Your task to perform on an android device: Open maps Image 0: 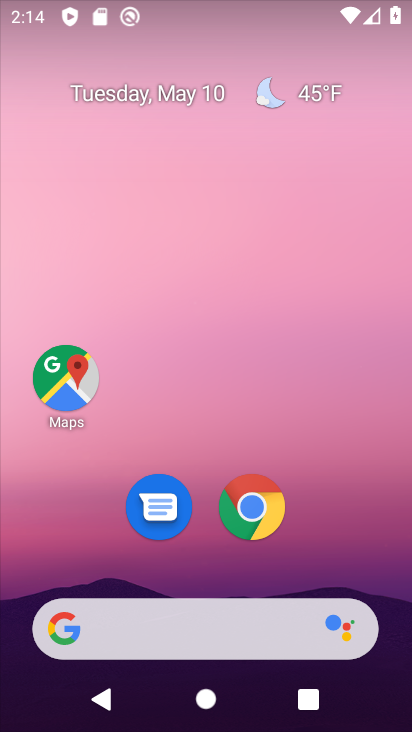
Step 0: click (62, 375)
Your task to perform on an android device: Open maps Image 1: 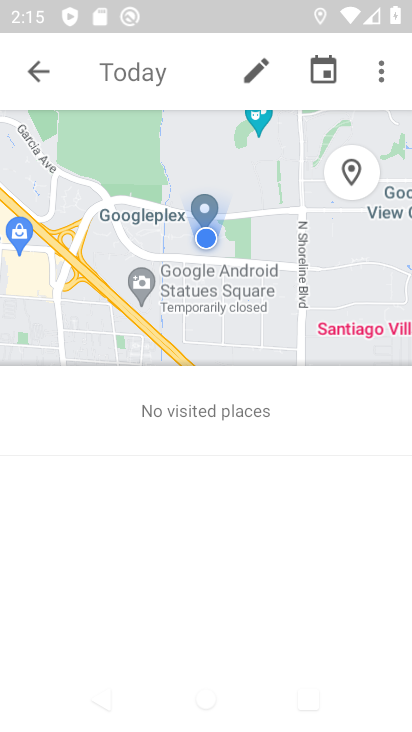
Step 1: click (38, 71)
Your task to perform on an android device: Open maps Image 2: 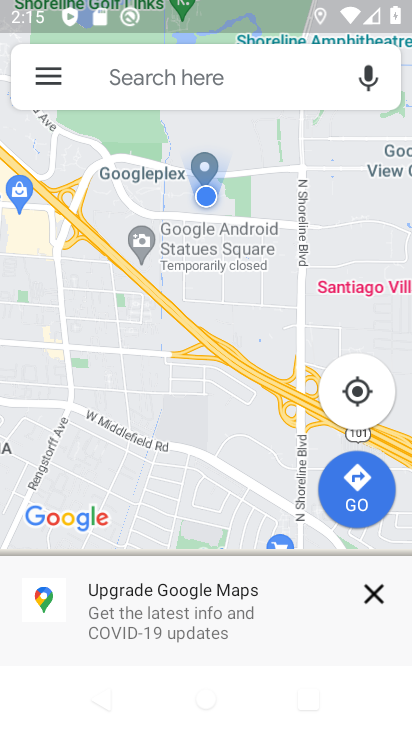
Step 2: click (372, 593)
Your task to perform on an android device: Open maps Image 3: 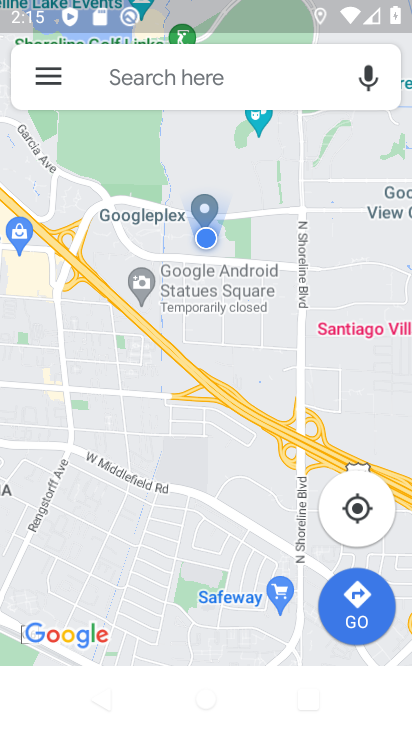
Step 3: task complete